Your task to perform on an android device: Go to CNN.com Image 0: 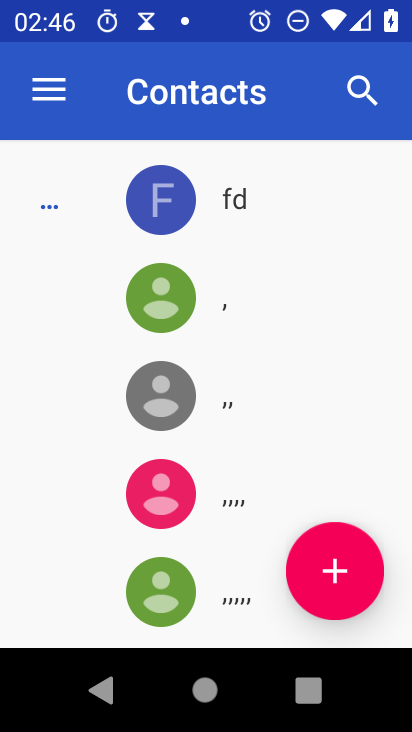
Step 0: press home button
Your task to perform on an android device: Go to CNN.com Image 1: 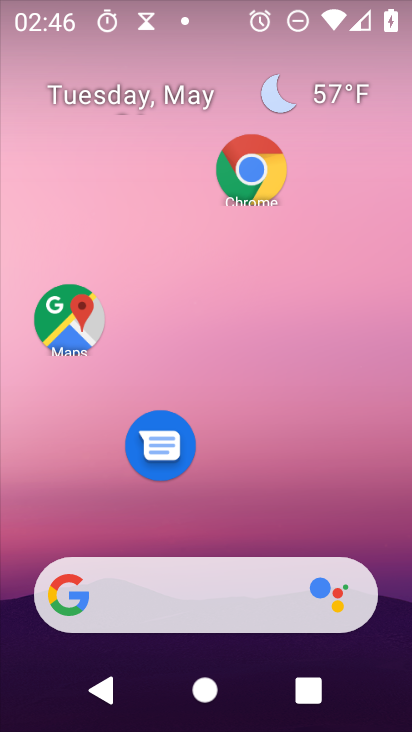
Step 1: click (245, 169)
Your task to perform on an android device: Go to CNN.com Image 2: 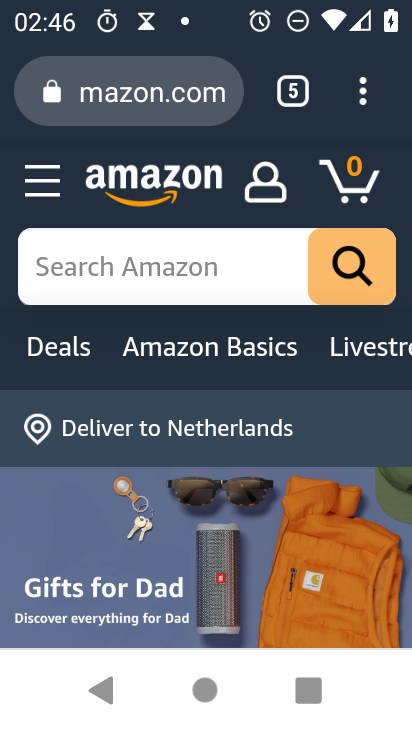
Step 2: click (364, 103)
Your task to perform on an android device: Go to CNN.com Image 3: 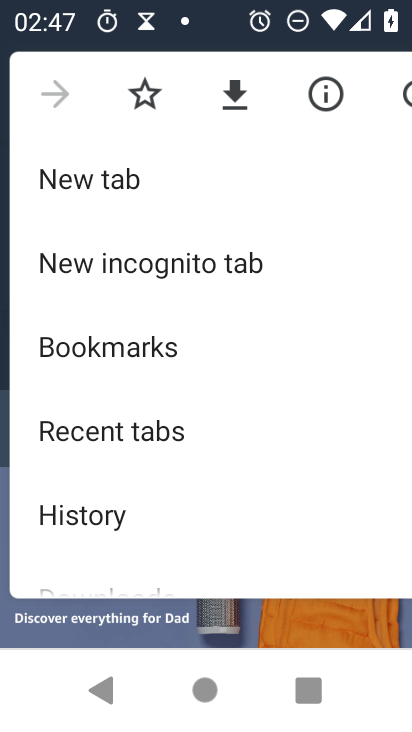
Step 3: click (82, 179)
Your task to perform on an android device: Go to CNN.com Image 4: 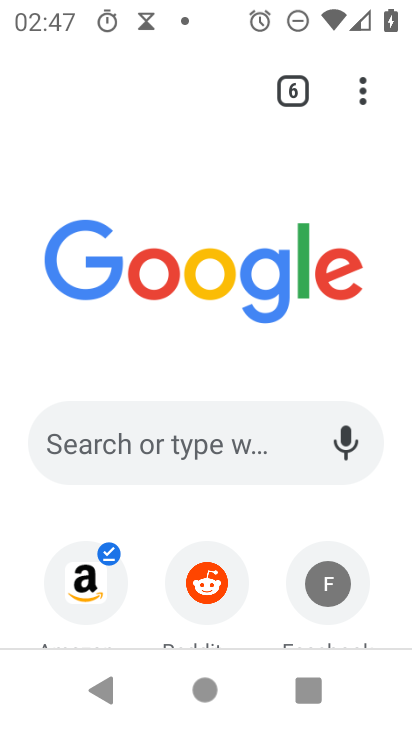
Step 4: drag from (258, 576) to (235, 311)
Your task to perform on an android device: Go to CNN.com Image 5: 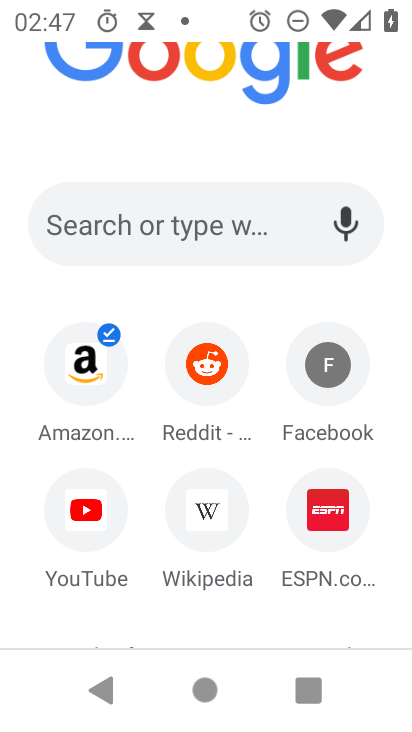
Step 5: click (185, 219)
Your task to perform on an android device: Go to CNN.com Image 6: 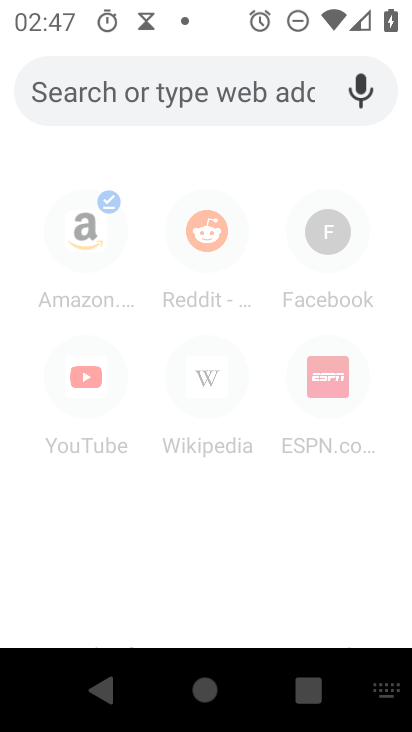
Step 6: type "CNN.com"
Your task to perform on an android device: Go to CNN.com Image 7: 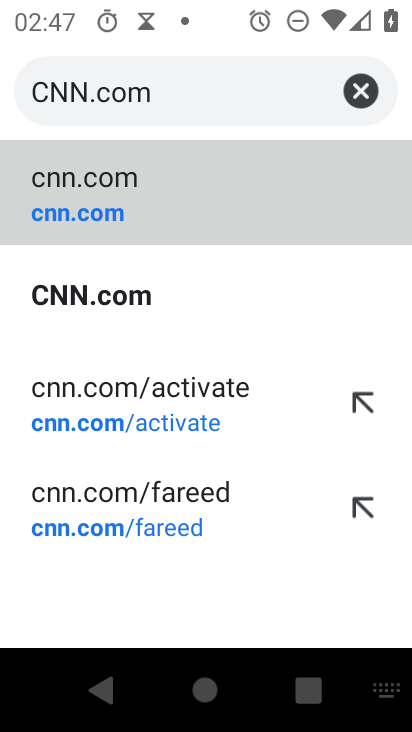
Step 7: click (111, 181)
Your task to perform on an android device: Go to CNN.com Image 8: 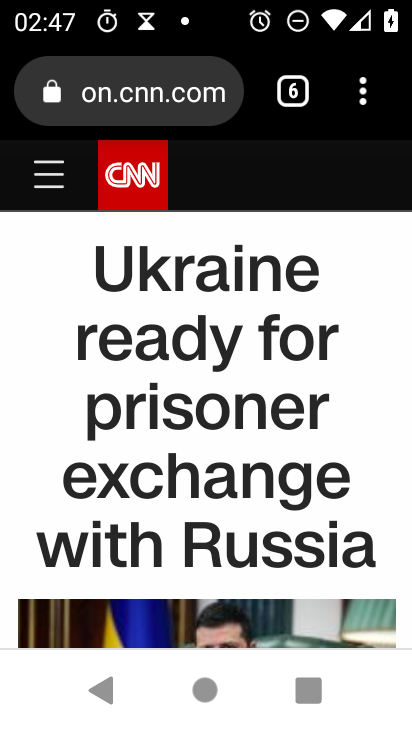
Step 8: task complete